Your task to perform on an android device: Open settings Image 0: 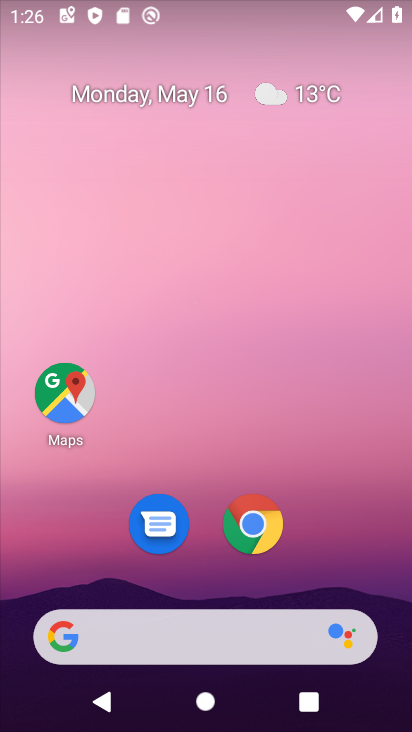
Step 0: drag from (349, 518) to (280, 44)
Your task to perform on an android device: Open settings Image 1: 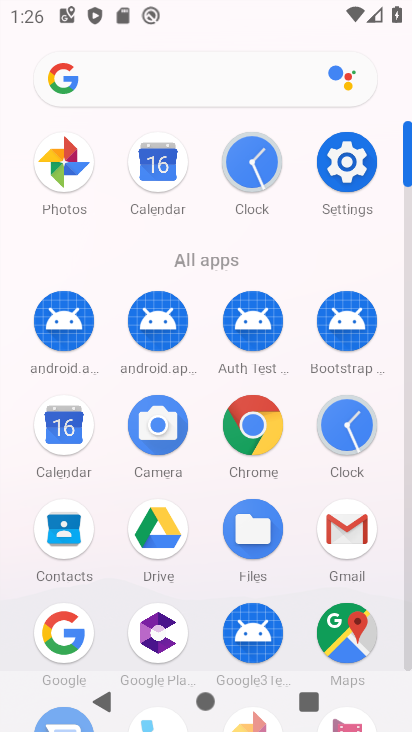
Step 1: click (351, 172)
Your task to perform on an android device: Open settings Image 2: 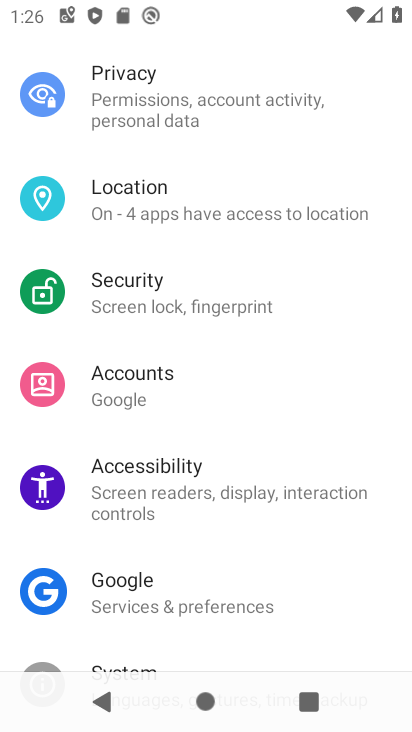
Step 2: task complete